Your task to perform on an android device: Open Google Chrome and click the shortcut for Amazon.com Image 0: 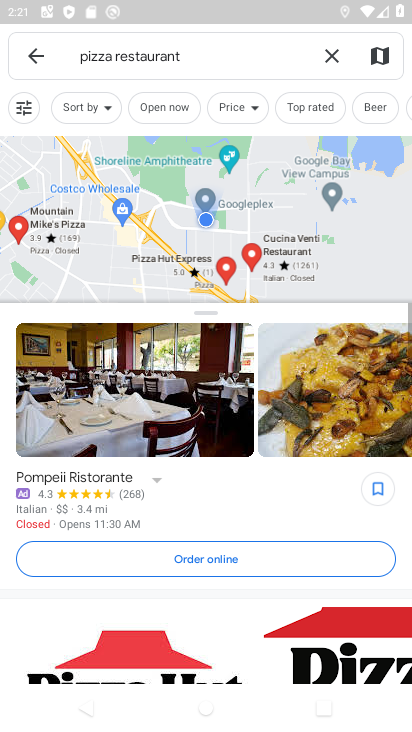
Step 0: press back button
Your task to perform on an android device: Open Google Chrome and click the shortcut for Amazon.com Image 1: 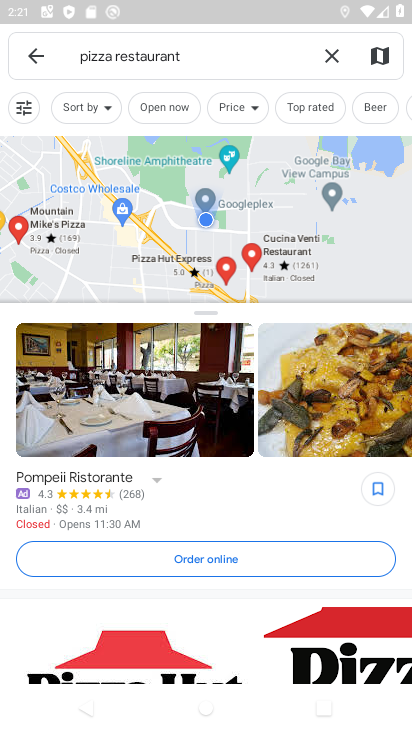
Step 1: press back button
Your task to perform on an android device: Open Google Chrome and click the shortcut for Amazon.com Image 2: 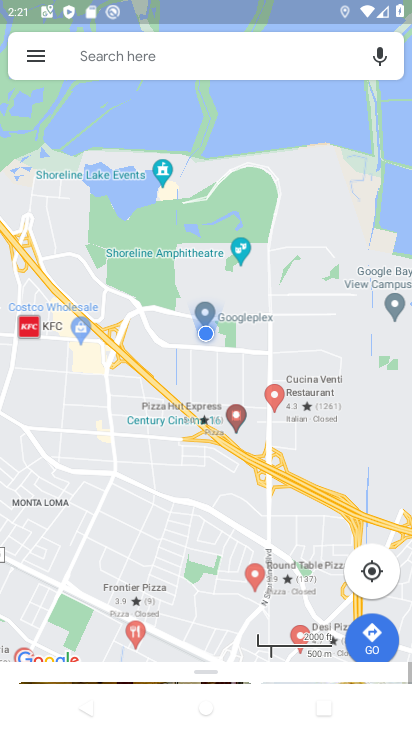
Step 2: press home button
Your task to perform on an android device: Open Google Chrome and click the shortcut for Amazon.com Image 3: 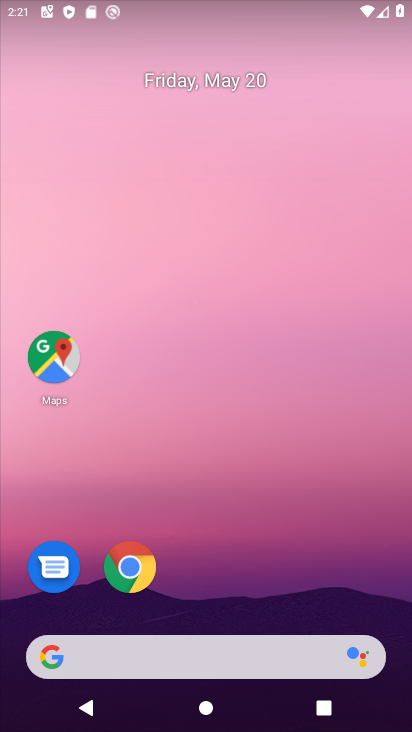
Step 3: drag from (258, 537) to (258, 27)
Your task to perform on an android device: Open Google Chrome and click the shortcut for Amazon.com Image 4: 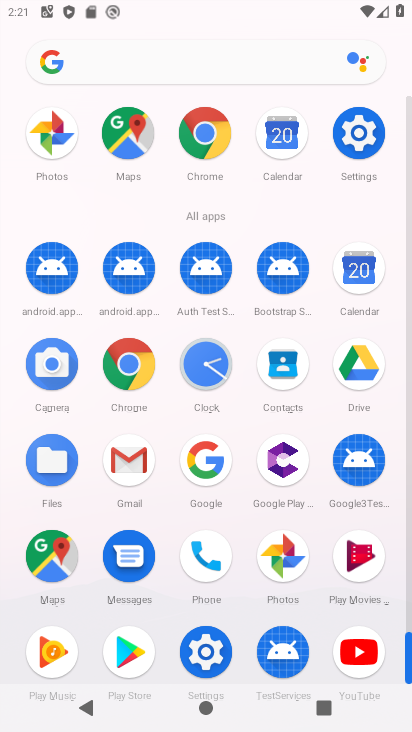
Step 4: click (129, 370)
Your task to perform on an android device: Open Google Chrome and click the shortcut for Amazon.com Image 5: 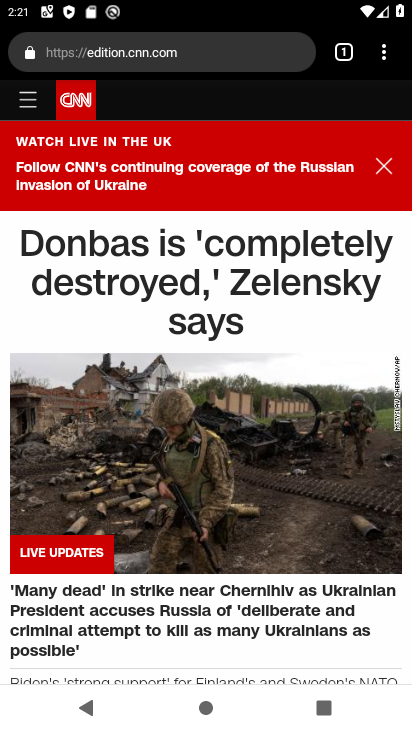
Step 5: click (207, 51)
Your task to perform on an android device: Open Google Chrome and click the shortcut for Amazon.com Image 6: 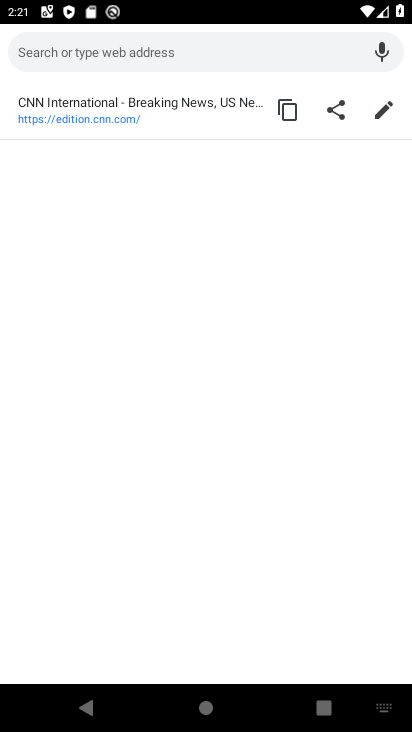
Step 6: type "Amazon.com"
Your task to perform on an android device: Open Google Chrome and click the shortcut for Amazon.com Image 7: 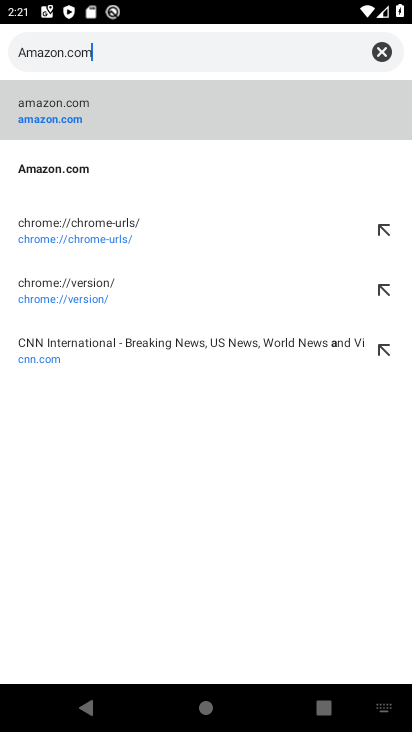
Step 7: type ""
Your task to perform on an android device: Open Google Chrome and click the shortcut for Amazon.com Image 8: 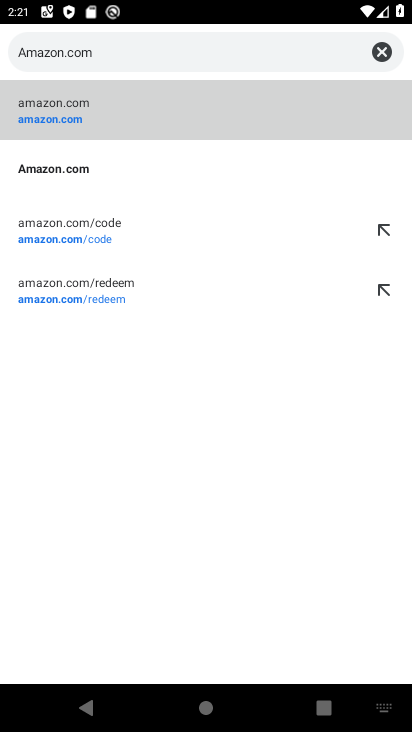
Step 8: click (116, 108)
Your task to perform on an android device: Open Google Chrome and click the shortcut for Amazon.com Image 9: 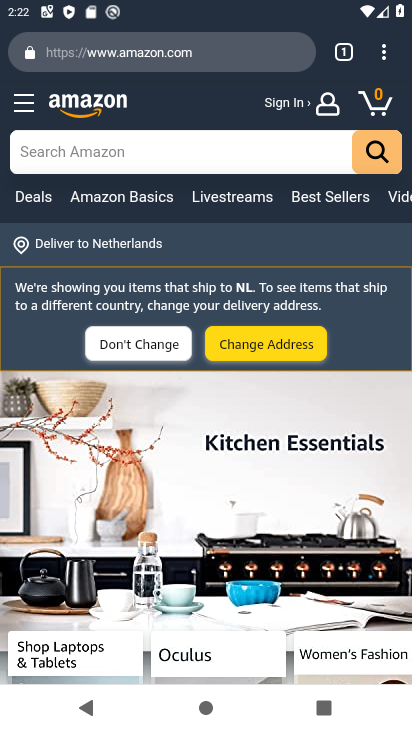
Step 9: drag from (383, 54) to (227, 532)
Your task to perform on an android device: Open Google Chrome and click the shortcut for Amazon.com Image 10: 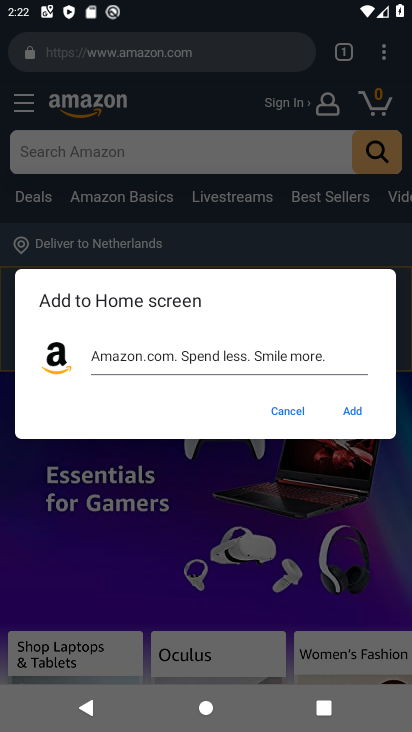
Step 10: click (348, 414)
Your task to perform on an android device: Open Google Chrome and click the shortcut for Amazon.com Image 11: 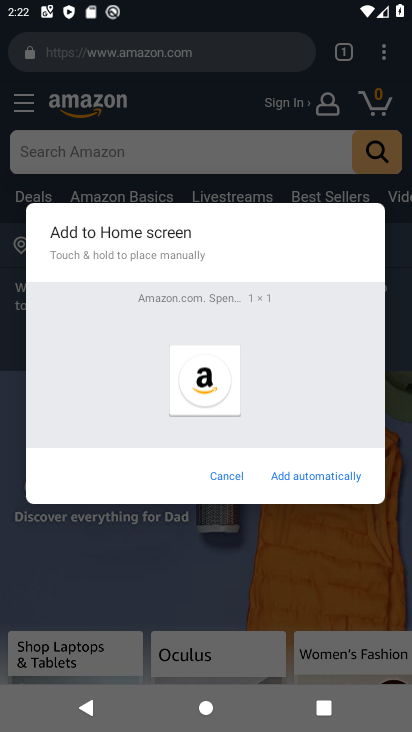
Step 11: click (308, 475)
Your task to perform on an android device: Open Google Chrome and click the shortcut for Amazon.com Image 12: 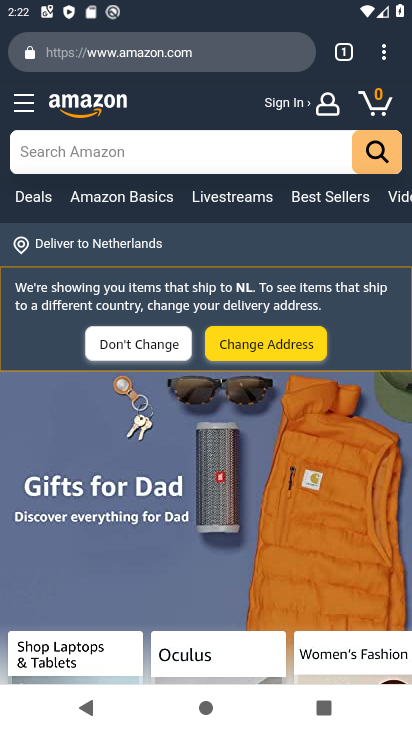
Step 12: task complete